Your task to perform on an android device: open app "Skype" (install if not already installed), go to login, and select forgot password Image 0: 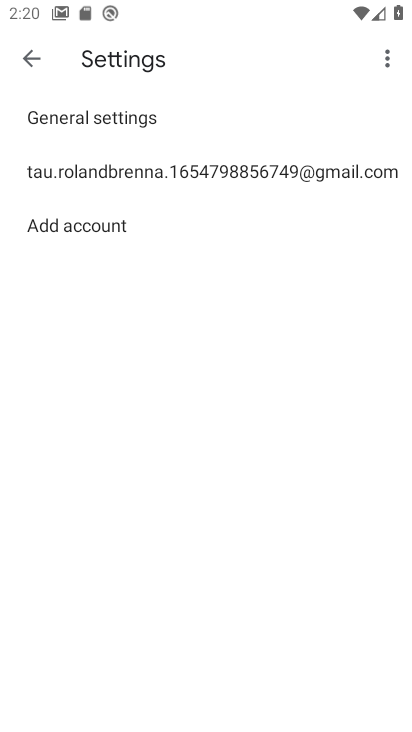
Step 0: press back button
Your task to perform on an android device: open app "Skype" (install if not already installed), go to login, and select forgot password Image 1: 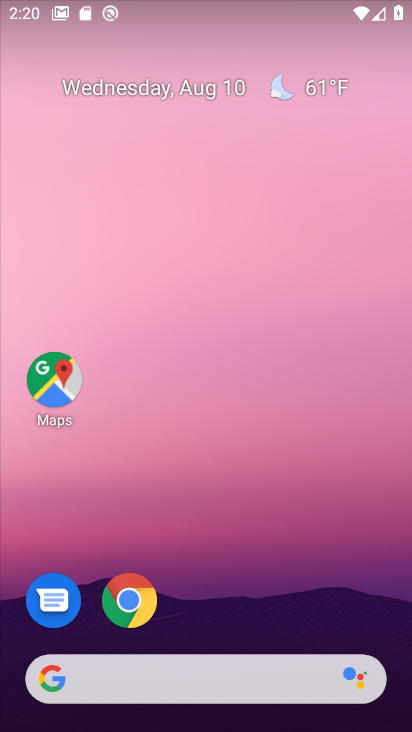
Step 1: drag from (170, 616) to (221, 13)
Your task to perform on an android device: open app "Skype" (install if not already installed), go to login, and select forgot password Image 2: 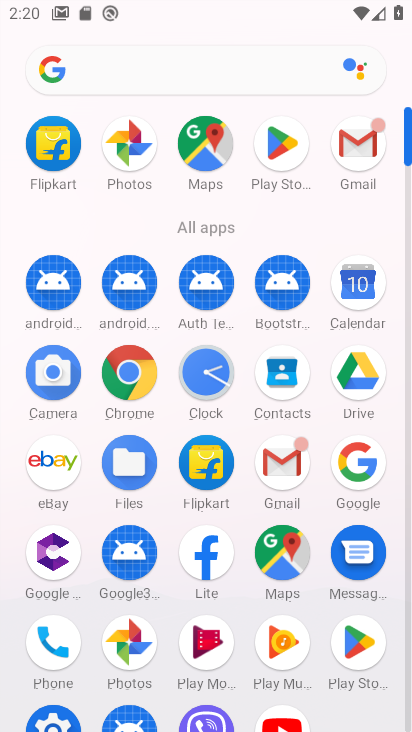
Step 2: click (288, 144)
Your task to perform on an android device: open app "Skype" (install if not already installed), go to login, and select forgot password Image 3: 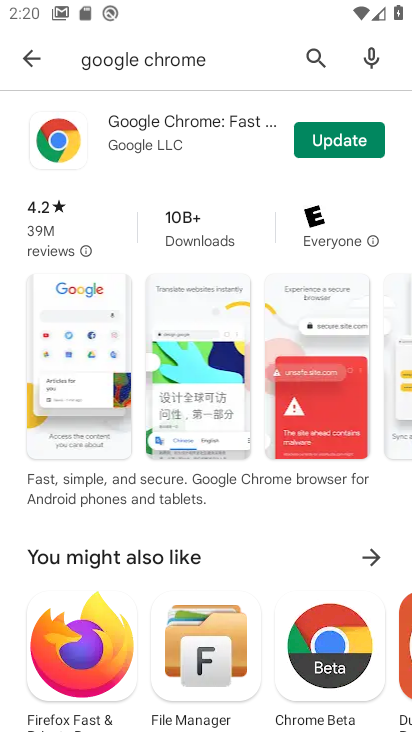
Step 3: click (308, 63)
Your task to perform on an android device: open app "Skype" (install if not already installed), go to login, and select forgot password Image 4: 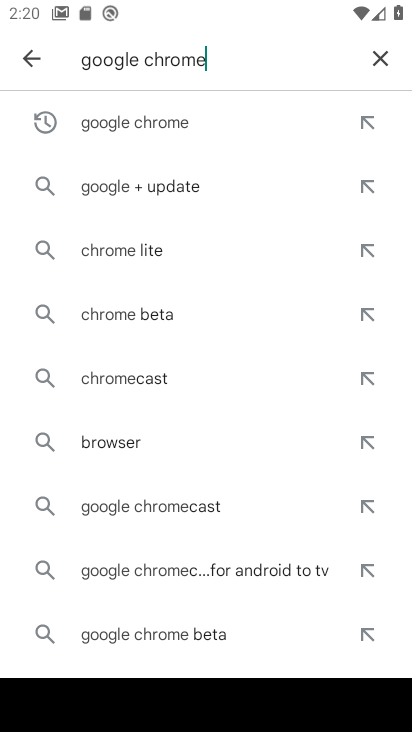
Step 4: click (377, 58)
Your task to perform on an android device: open app "Skype" (install if not already installed), go to login, and select forgot password Image 5: 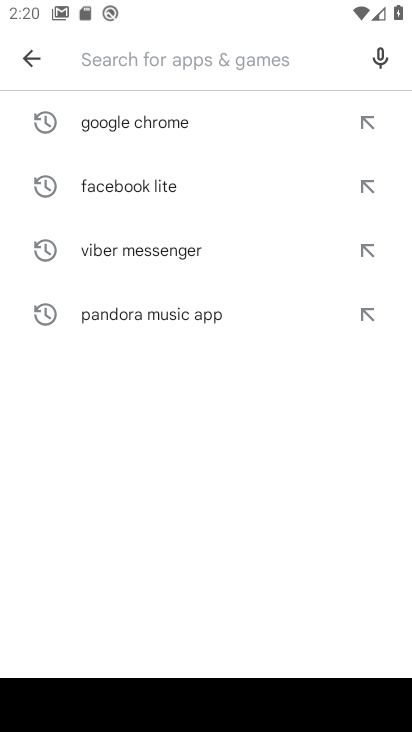
Step 5: click (106, 66)
Your task to perform on an android device: open app "Skype" (install if not already installed), go to login, and select forgot password Image 6: 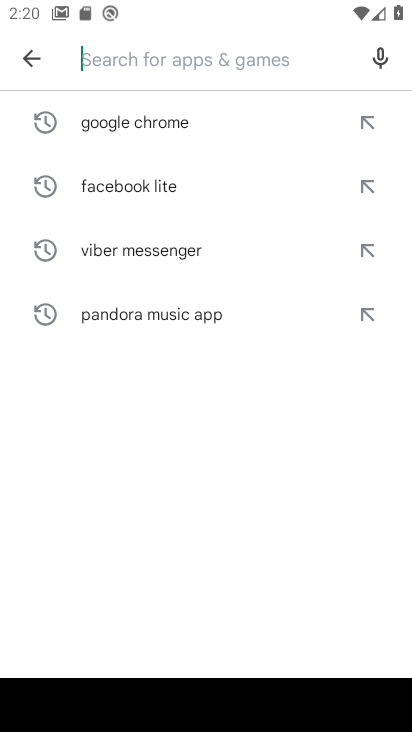
Step 6: type "Skype"
Your task to perform on an android device: open app "Skype" (install if not already installed), go to login, and select forgot password Image 7: 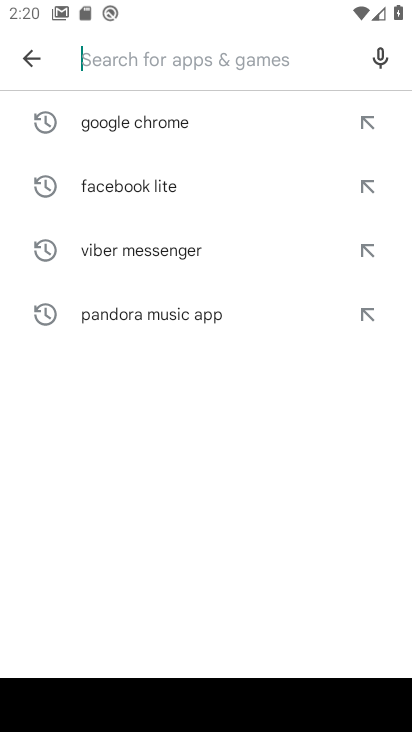
Step 7: click (174, 444)
Your task to perform on an android device: open app "Skype" (install if not already installed), go to login, and select forgot password Image 8: 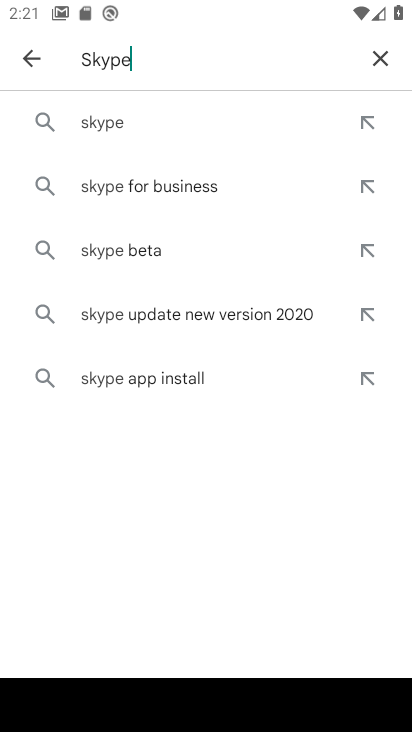
Step 8: click (118, 114)
Your task to perform on an android device: open app "Skype" (install if not already installed), go to login, and select forgot password Image 9: 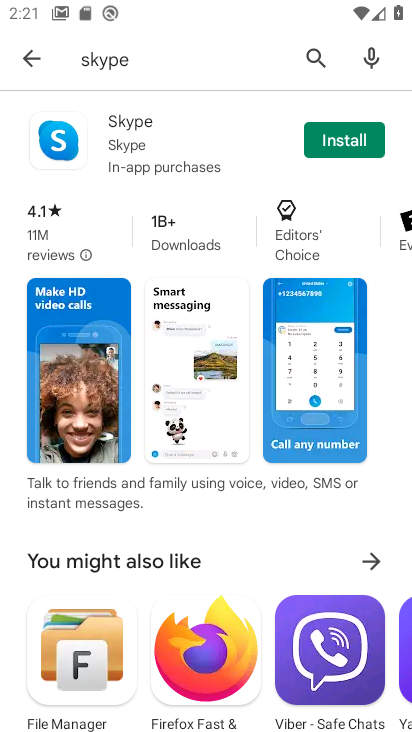
Step 9: click (333, 143)
Your task to perform on an android device: open app "Skype" (install if not already installed), go to login, and select forgot password Image 10: 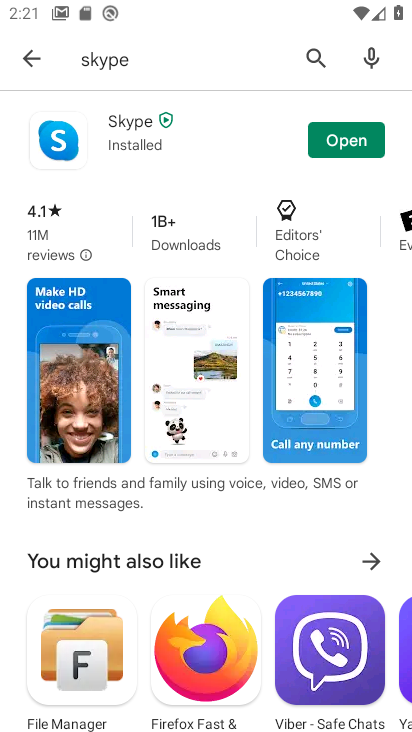
Step 10: click (323, 144)
Your task to perform on an android device: open app "Skype" (install if not already installed), go to login, and select forgot password Image 11: 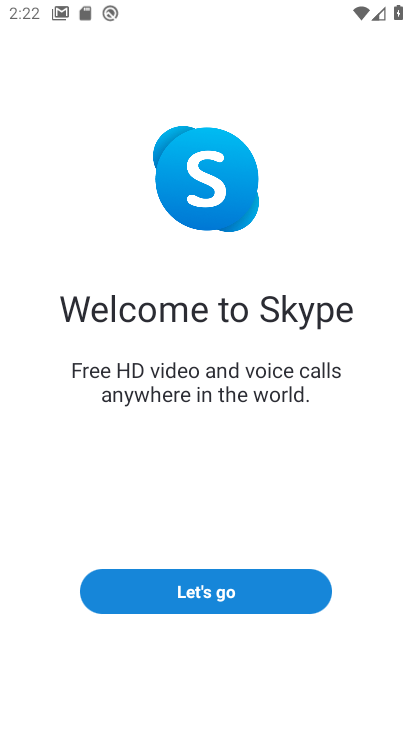
Step 11: click (239, 593)
Your task to perform on an android device: open app "Skype" (install if not already installed), go to login, and select forgot password Image 12: 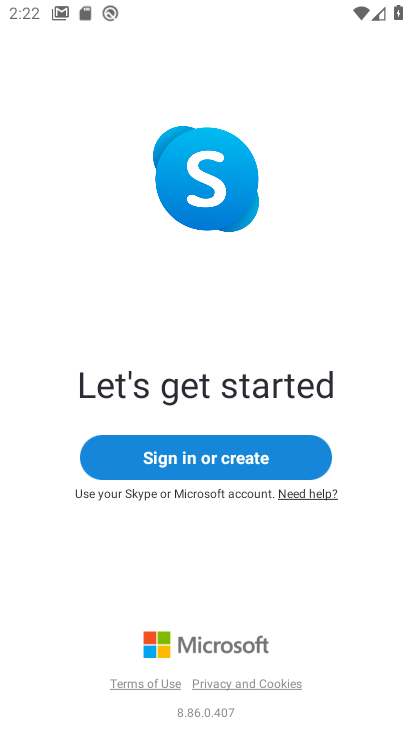
Step 12: click (230, 464)
Your task to perform on an android device: open app "Skype" (install if not already installed), go to login, and select forgot password Image 13: 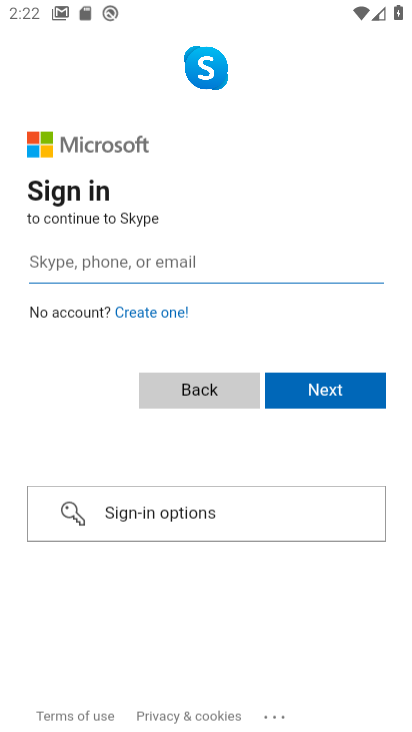
Step 13: task complete